Your task to perform on an android device: Open Google Chrome and click the shortcut for Amazon.com Image 0: 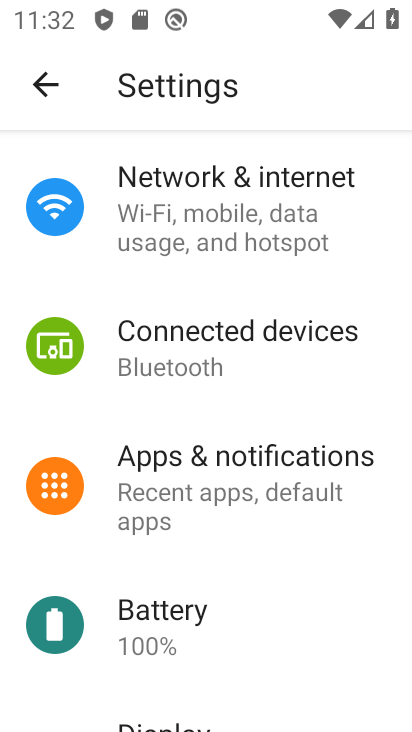
Step 0: press home button
Your task to perform on an android device: Open Google Chrome and click the shortcut for Amazon.com Image 1: 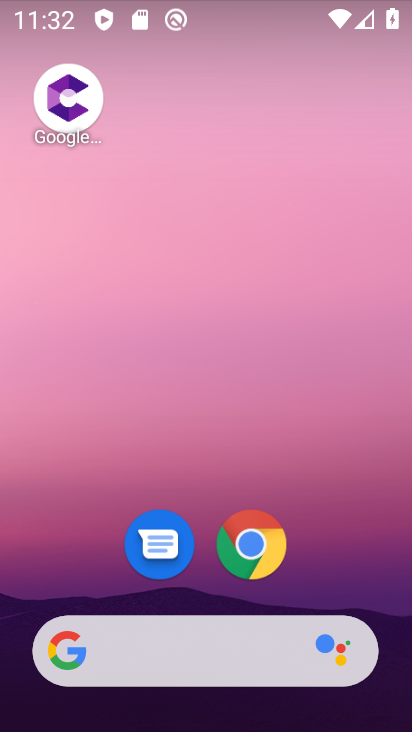
Step 1: click (247, 542)
Your task to perform on an android device: Open Google Chrome and click the shortcut for Amazon.com Image 2: 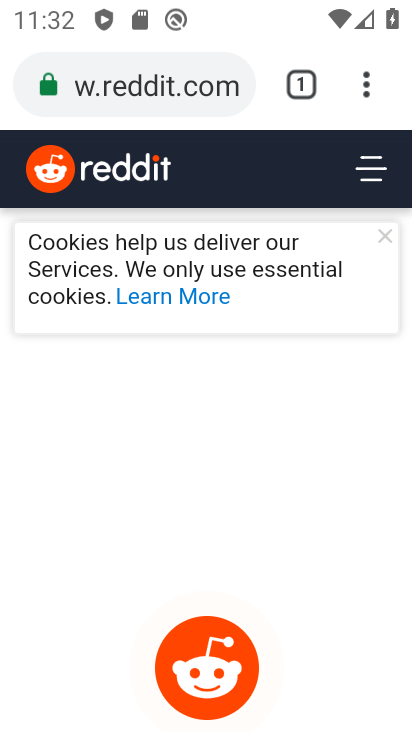
Step 2: click (300, 87)
Your task to perform on an android device: Open Google Chrome and click the shortcut for Amazon.com Image 3: 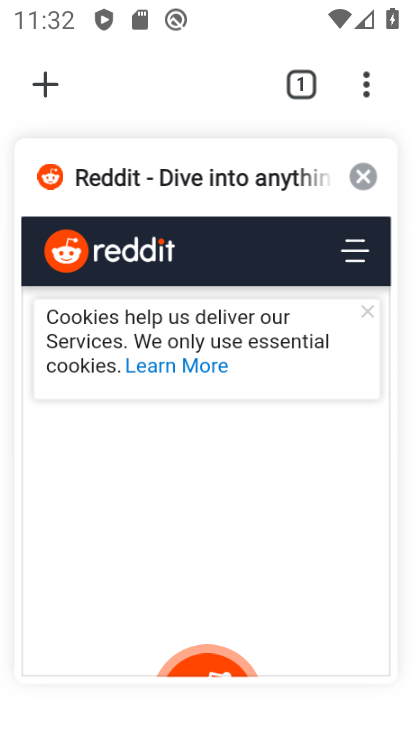
Step 3: click (28, 86)
Your task to perform on an android device: Open Google Chrome and click the shortcut for Amazon.com Image 4: 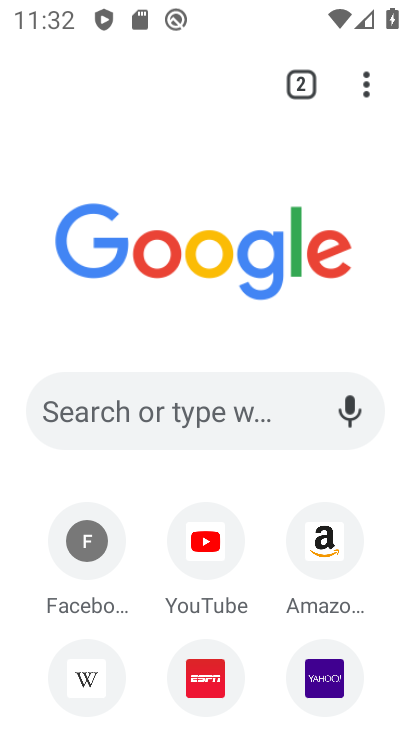
Step 4: click (319, 543)
Your task to perform on an android device: Open Google Chrome and click the shortcut for Amazon.com Image 5: 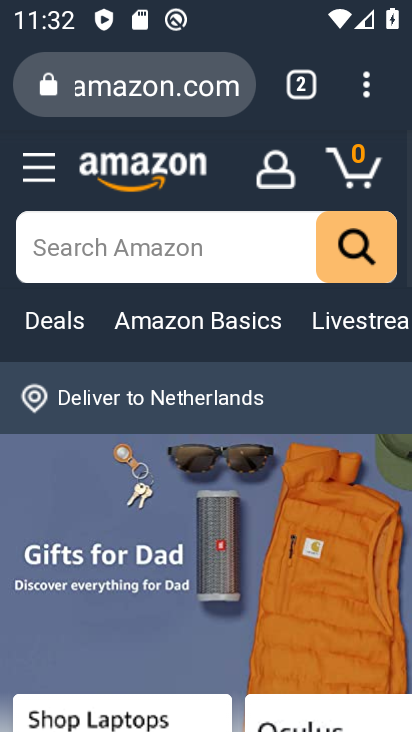
Step 5: task complete